Your task to perform on an android device: Check the news Image 0: 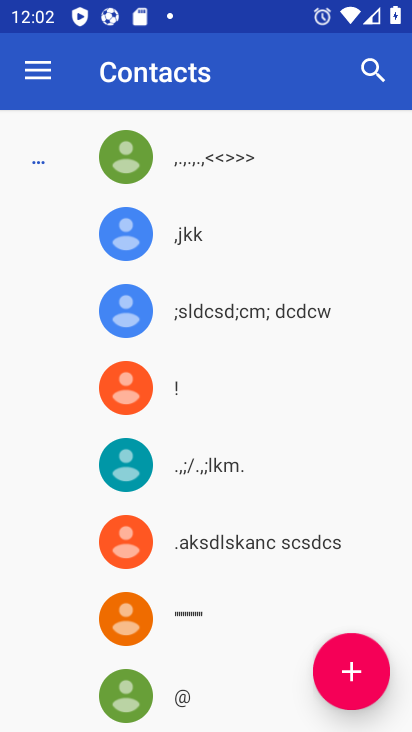
Step 0: press back button
Your task to perform on an android device: Check the news Image 1: 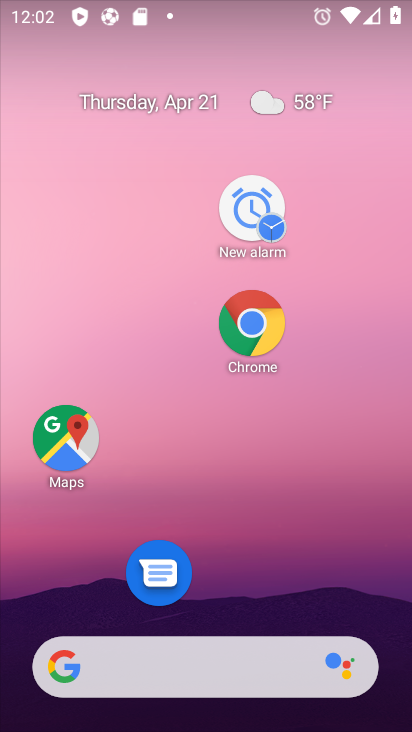
Step 1: click (256, 355)
Your task to perform on an android device: Check the news Image 2: 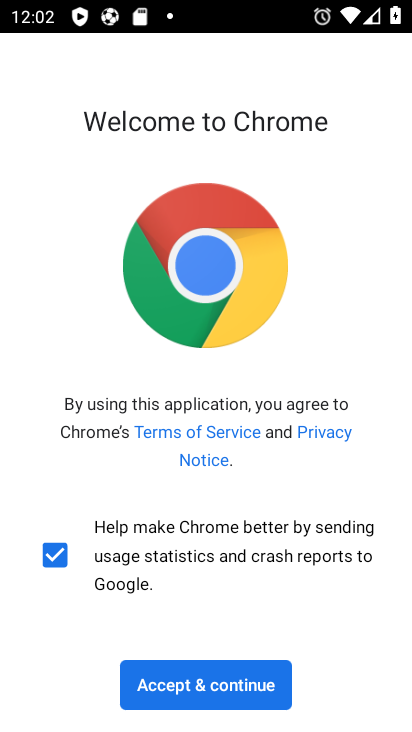
Step 2: click (186, 679)
Your task to perform on an android device: Check the news Image 3: 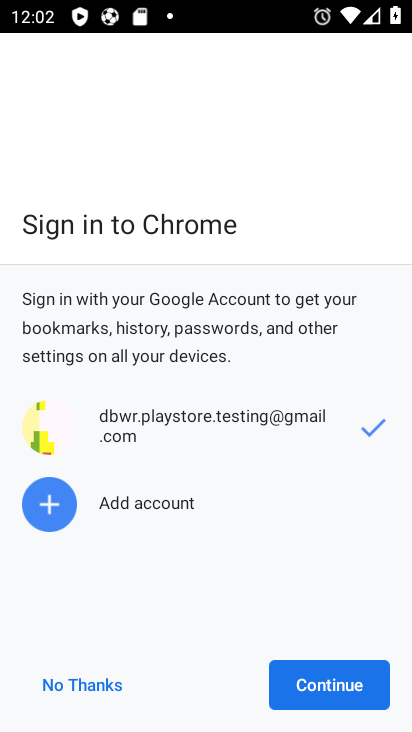
Step 3: click (297, 686)
Your task to perform on an android device: Check the news Image 4: 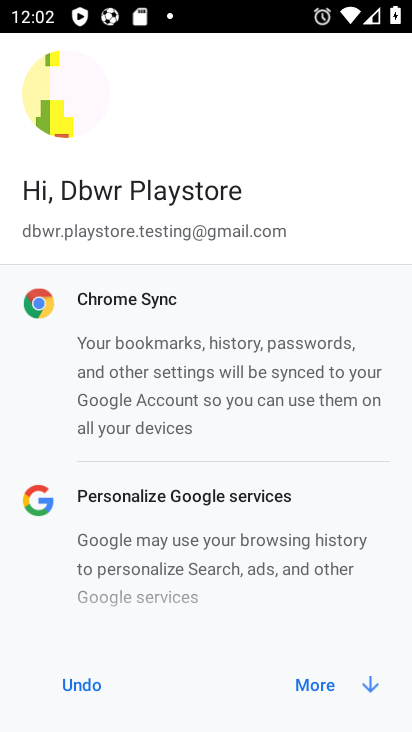
Step 4: click (326, 686)
Your task to perform on an android device: Check the news Image 5: 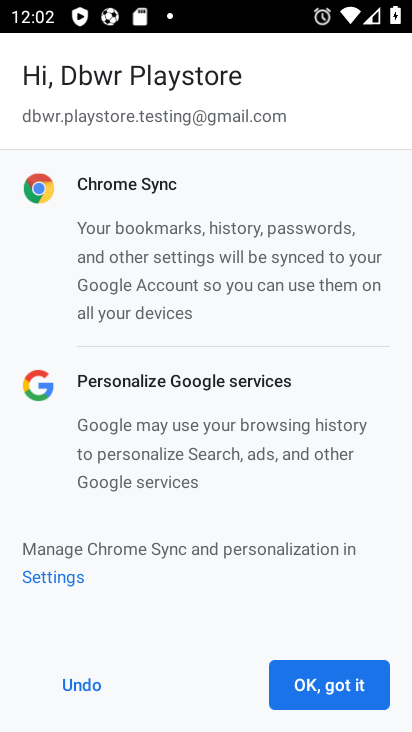
Step 5: click (311, 680)
Your task to perform on an android device: Check the news Image 6: 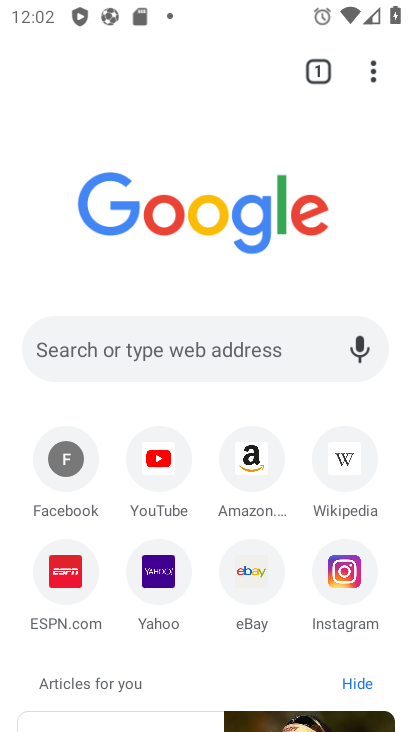
Step 6: drag from (291, 628) to (303, 229)
Your task to perform on an android device: Check the news Image 7: 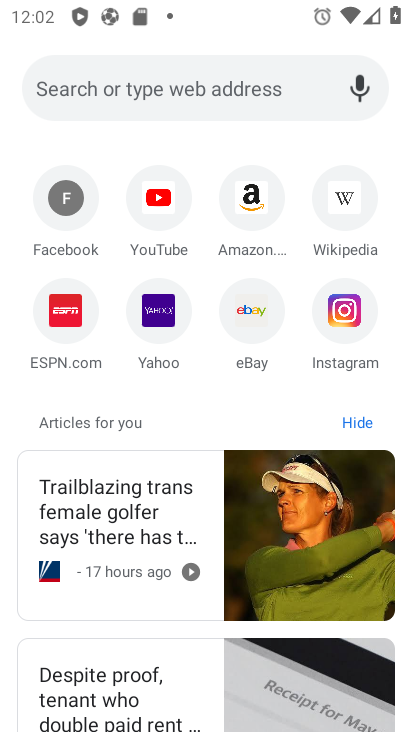
Step 7: drag from (131, 669) to (221, 421)
Your task to perform on an android device: Check the news Image 8: 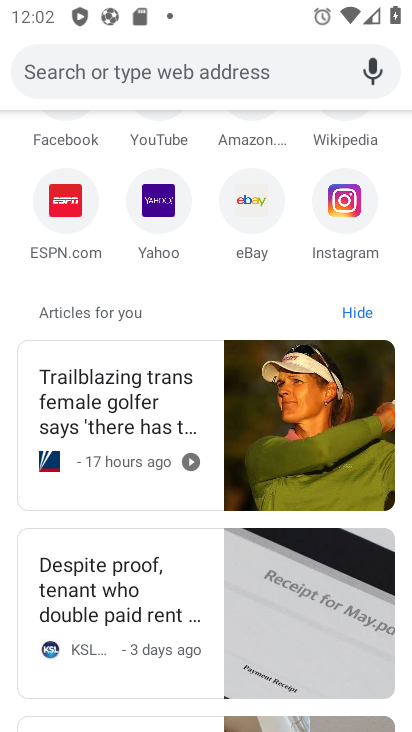
Step 8: drag from (173, 688) to (177, 461)
Your task to perform on an android device: Check the news Image 9: 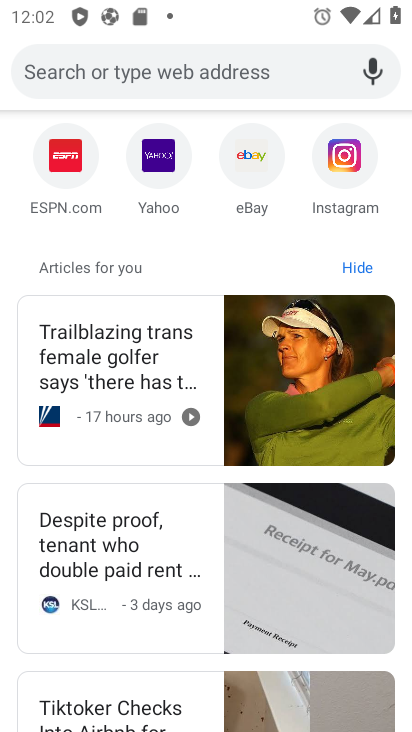
Step 9: drag from (126, 657) to (165, 381)
Your task to perform on an android device: Check the news Image 10: 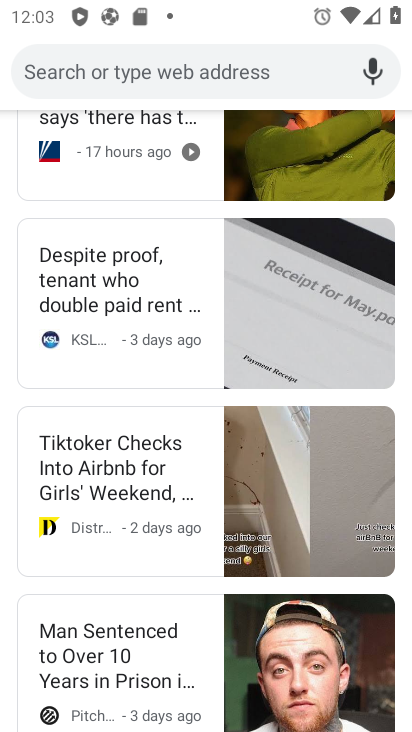
Step 10: drag from (113, 655) to (167, 427)
Your task to perform on an android device: Check the news Image 11: 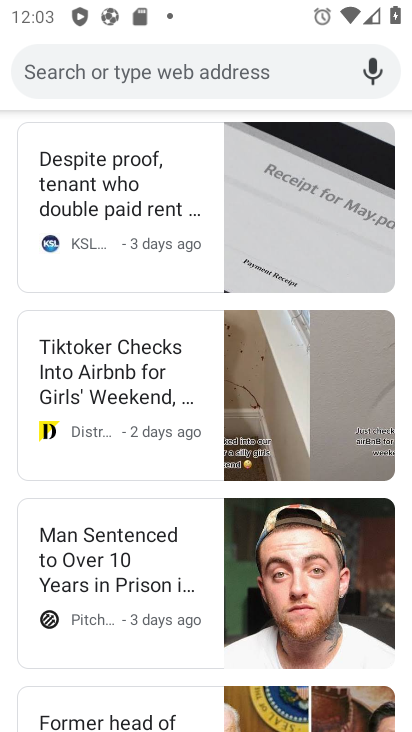
Step 11: drag from (129, 639) to (131, 447)
Your task to perform on an android device: Check the news Image 12: 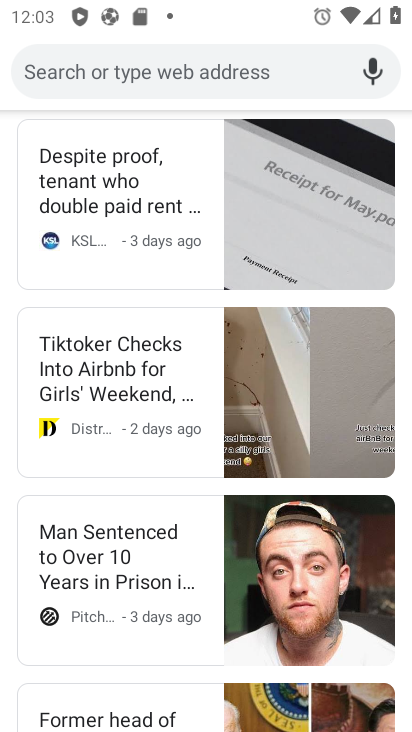
Step 12: click (186, 376)
Your task to perform on an android device: Check the news Image 13: 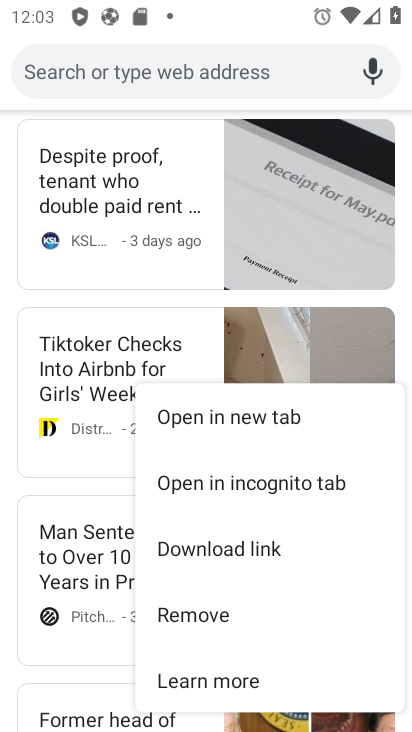
Step 13: task complete